Your task to perform on an android device: Add lg ultragear to the cart on walmart, then select checkout. Image 0: 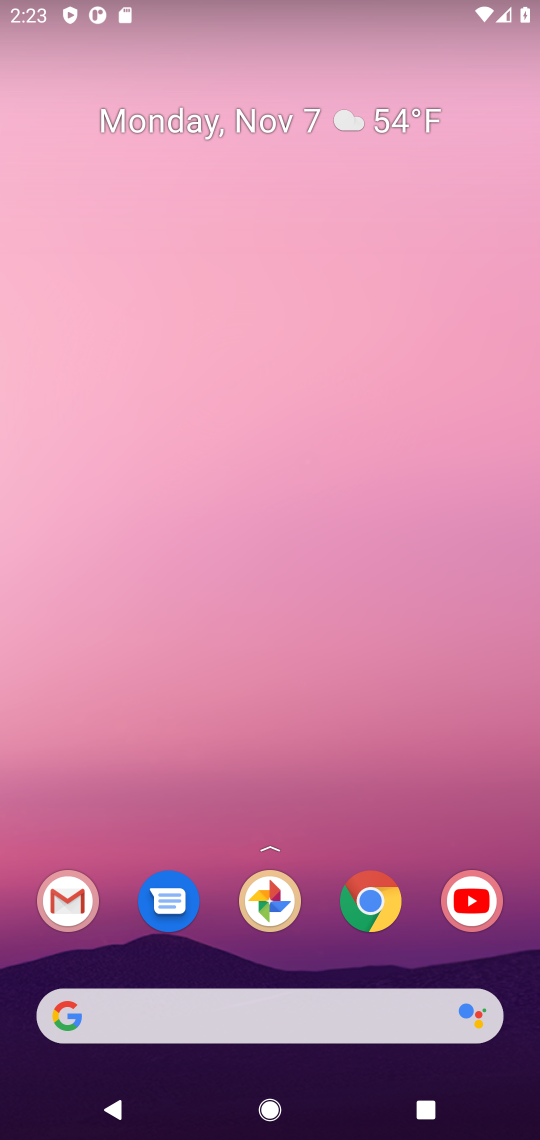
Step 0: click (384, 893)
Your task to perform on an android device: Add lg ultragear to the cart on walmart, then select checkout. Image 1: 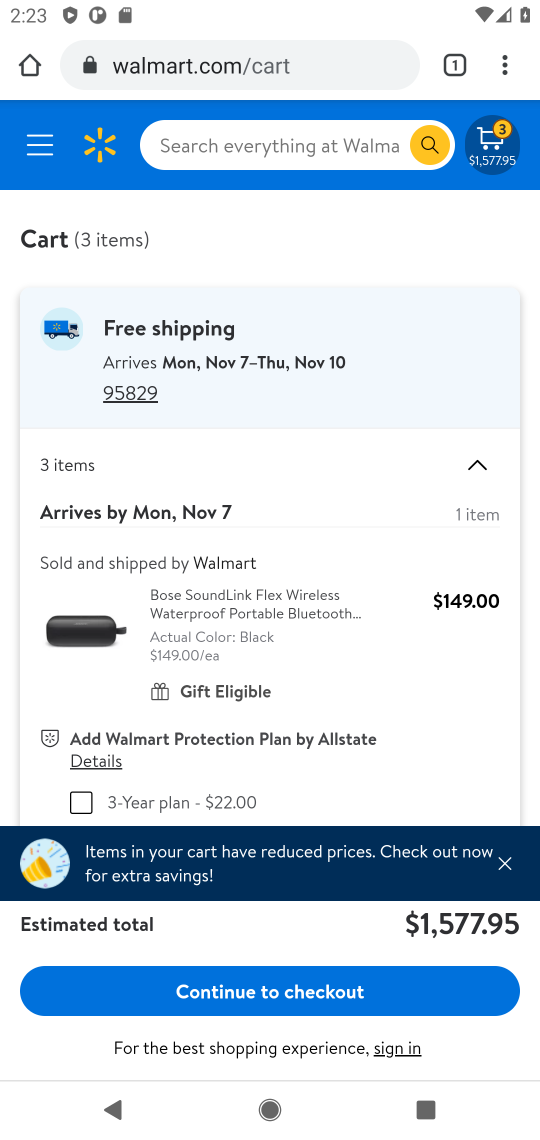
Step 1: click (201, 148)
Your task to perform on an android device: Add lg ultragear to the cart on walmart, then select checkout. Image 2: 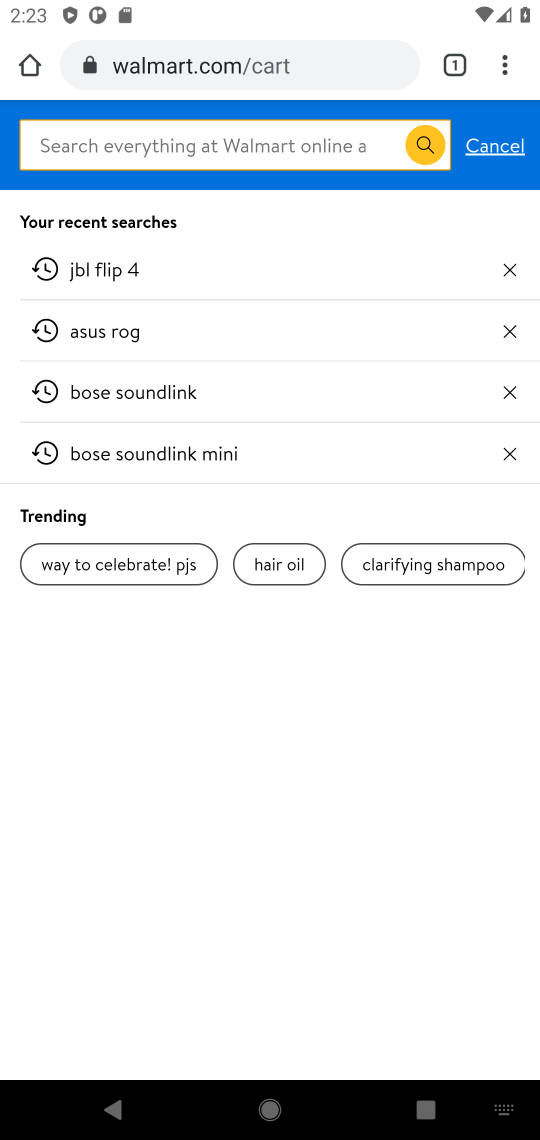
Step 2: type "lg ultragear"
Your task to perform on an android device: Add lg ultragear to the cart on walmart, then select checkout. Image 3: 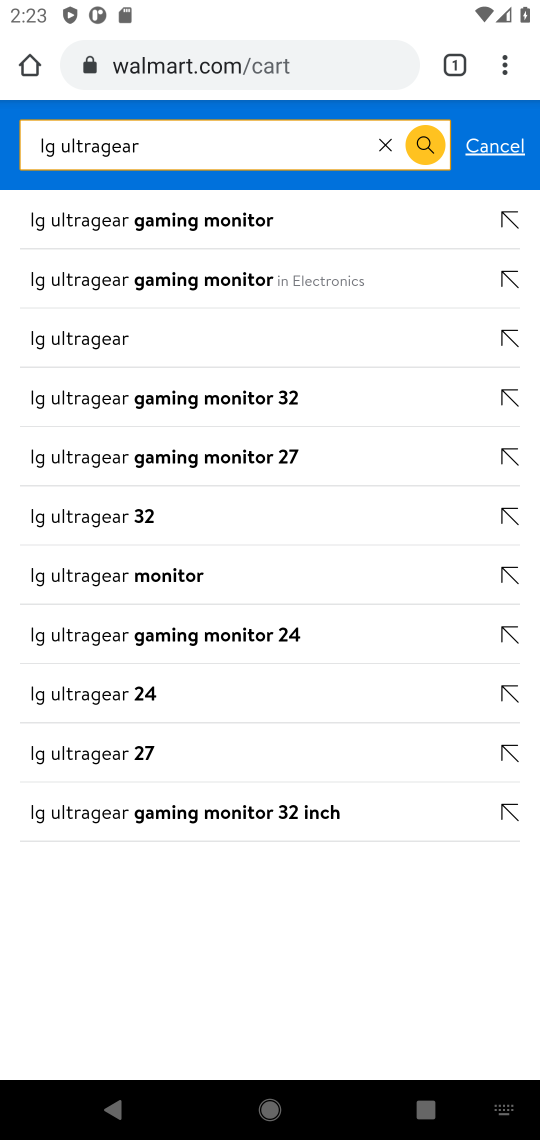
Step 3: click (95, 329)
Your task to perform on an android device: Add lg ultragear to the cart on walmart, then select checkout. Image 4: 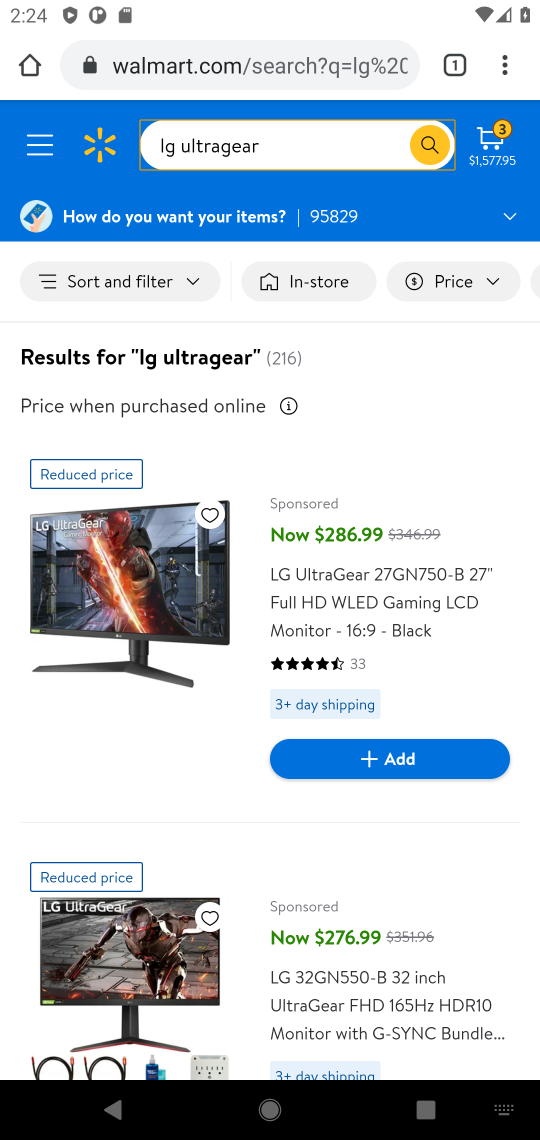
Step 4: click (444, 759)
Your task to perform on an android device: Add lg ultragear to the cart on walmart, then select checkout. Image 5: 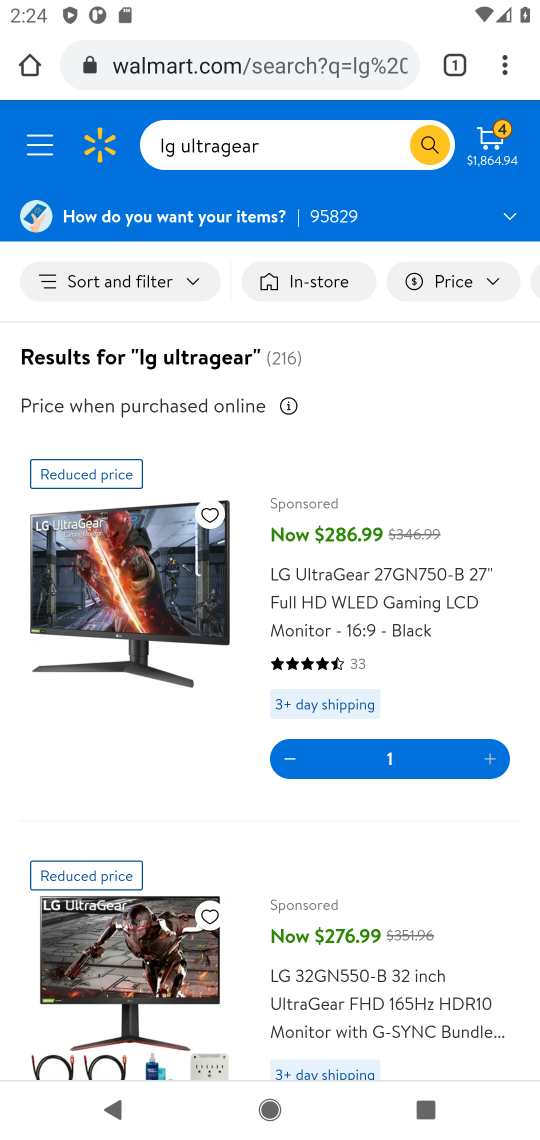
Step 5: click (487, 139)
Your task to perform on an android device: Add lg ultragear to the cart on walmart, then select checkout. Image 6: 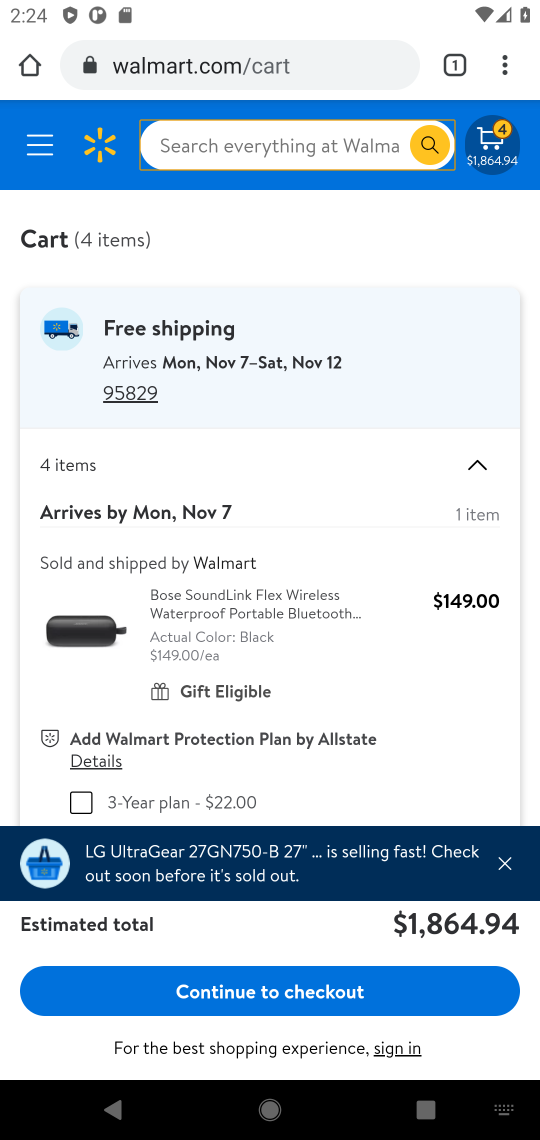
Step 6: click (224, 990)
Your task to perform on an android device: Add lg ultragear to the cart on walmart, then select checkout. Image 7: 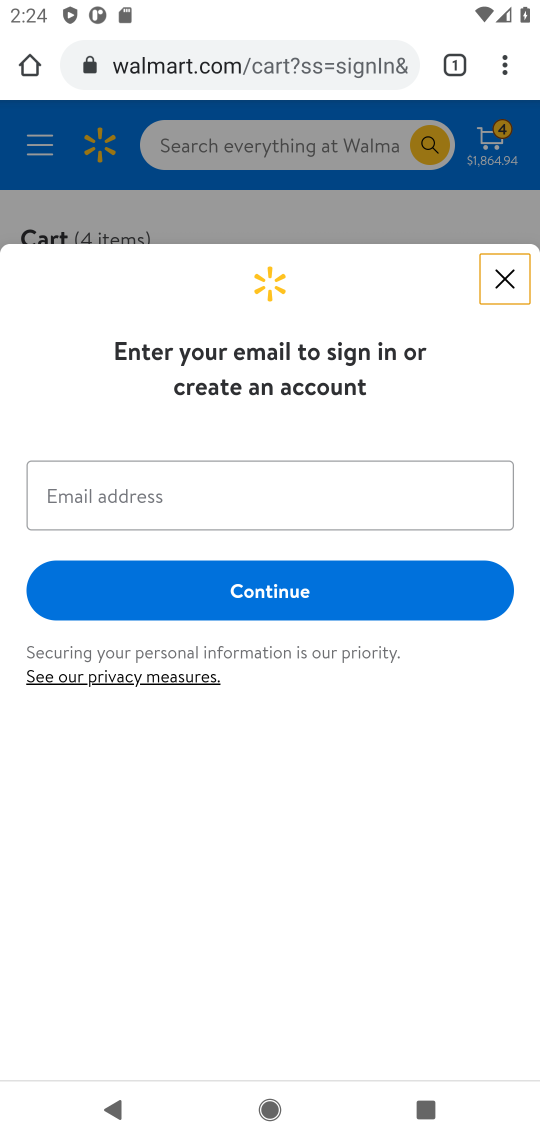
Step 7: task complete